Your task to perform on an android device: Open settings Image 0: 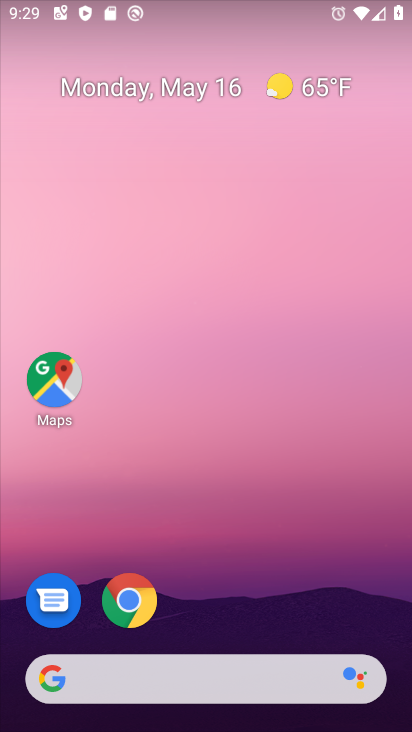
Step 0: drag from (201, 640) to (287, 134)
Your task to perform on an android device: Open settings Image 1: 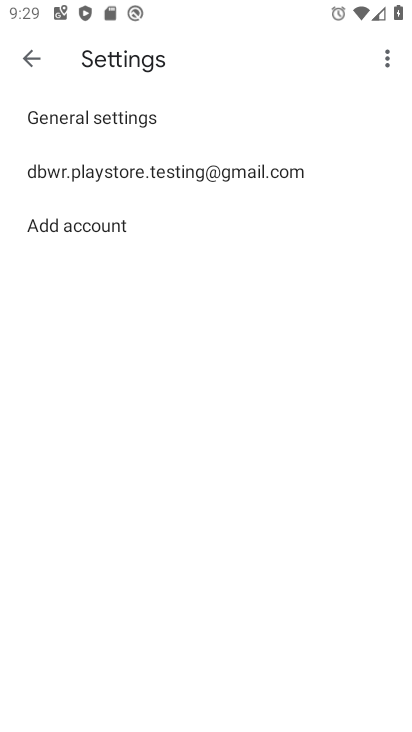
Step 1: press home button
Your task to perform on an android device: Open settings Image 2: 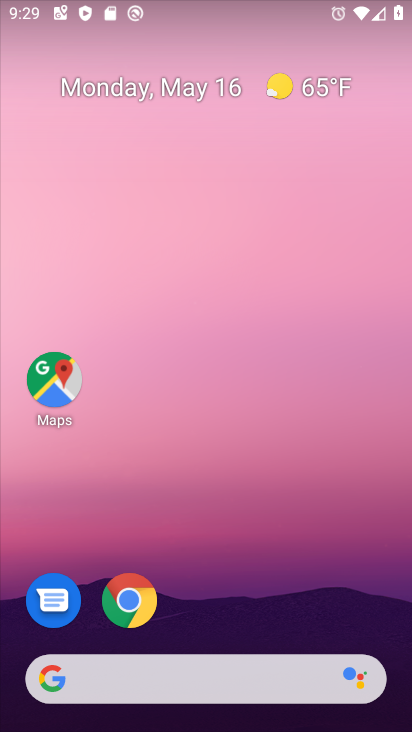
Step 2: drag from (220, 597) to (331, 127)
Your task to perform on an android device: Open settings Image 3: 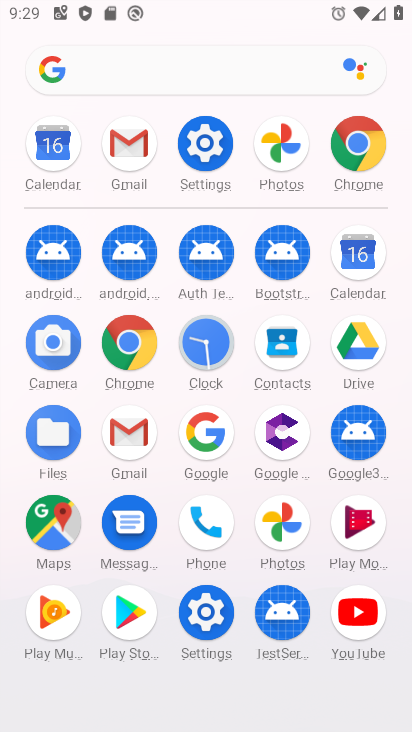
Step 3: click (206, 135)
Your task to perform on an android device: Open settings Image 4: 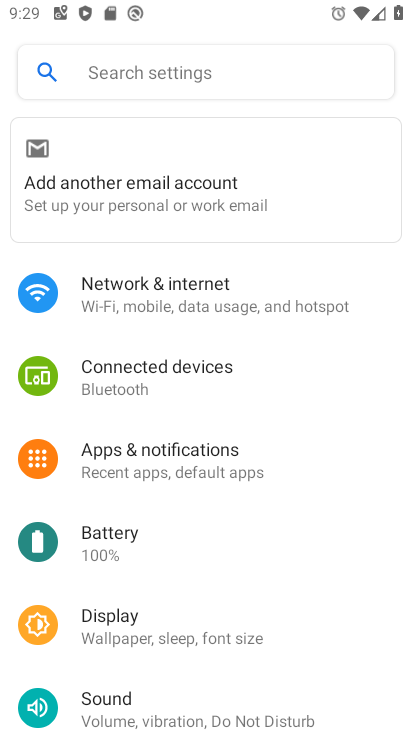
Step 4: task complete